Your task to perform on an android device: Clear the shopping cart on bestbuy. Search for razer blade on bestbuy, select the first entry, and add it to the cart. Image 0: 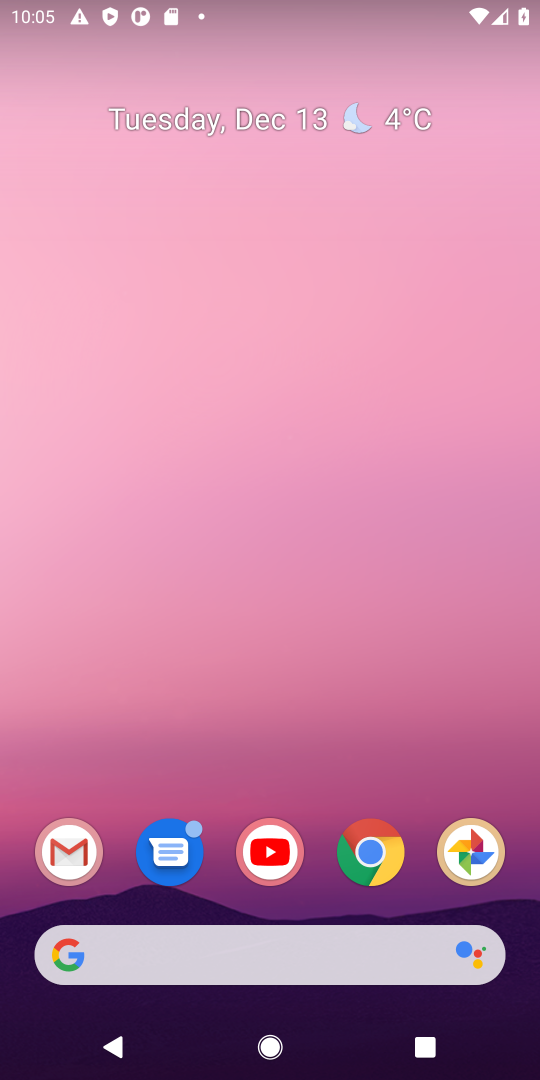
Step 0: drag from (91, 952) to (149, 942)
Your task to perform on an android device: Clear the shopping cart on bestbuy. Search for razer blade on bestbuy, select the first entry, and add it to the cart. Image 1: 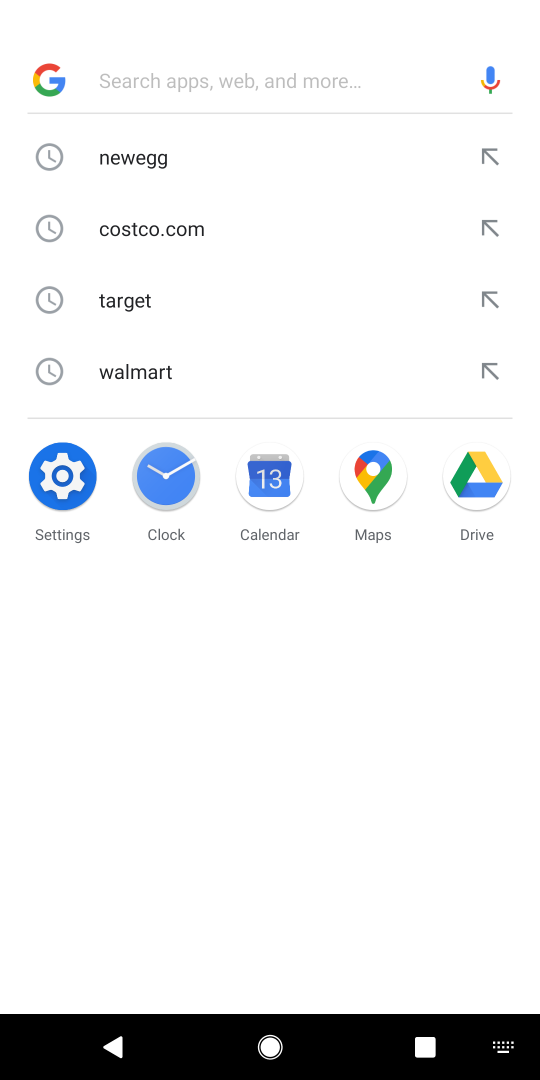
Step 1: type "bestbuy"
Your task to perform on an android device: Clear the shopping cart on bestbuy. Search for razer blade on bestbuy, select the first entry, and add it to the cart. Image 2: 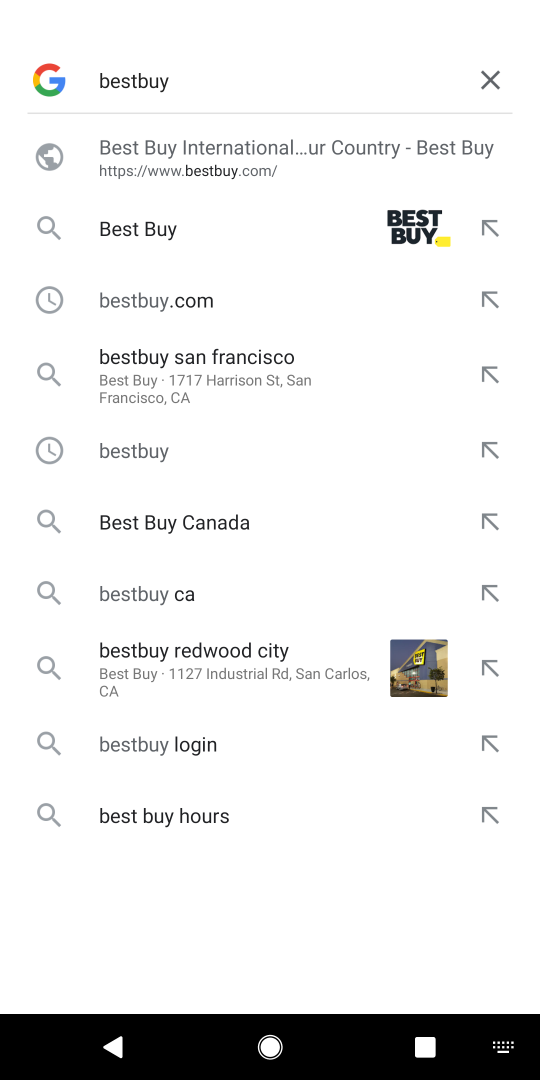
Step 2: press enter
Your task to perform on an android device: Clear the shopping cart on bestbuy. Search for razer blade on bestbuy, select the first entry, and add it to the cart. Image 3: 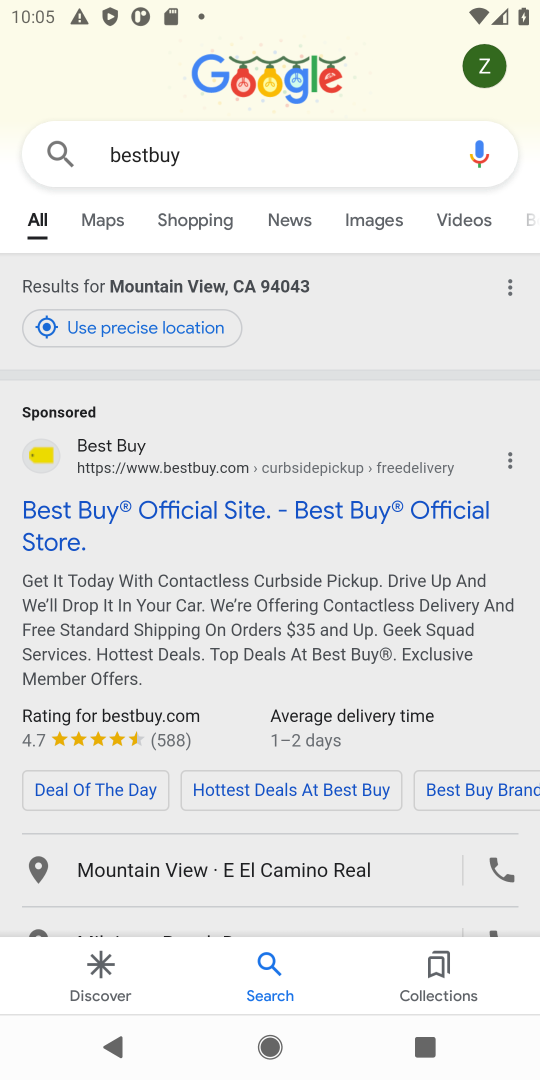
Step 3: click (133, 501)
Your task to perform on an android device: Clear the shopping cart on bestbuy. Search for razer blade on bestbuy, select the first entry, and add it to the cart. Image 4: 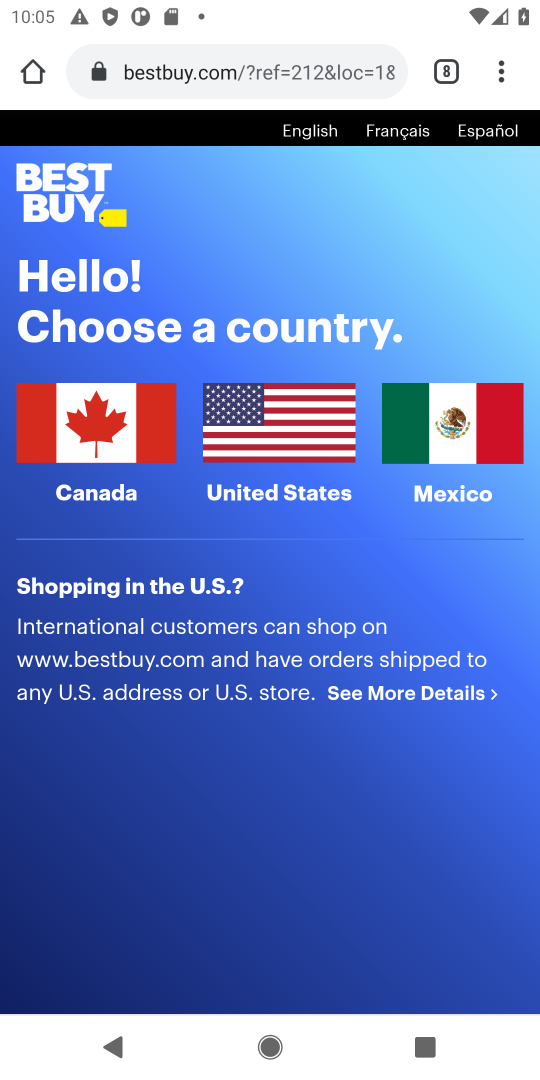
Step 4: click (93, 432)
Your task to perform on an android device: Clear the shopping cart on bestbuy. Search for razer blade on bestbuy, select the first entry, and add it to the cart. Image 5: 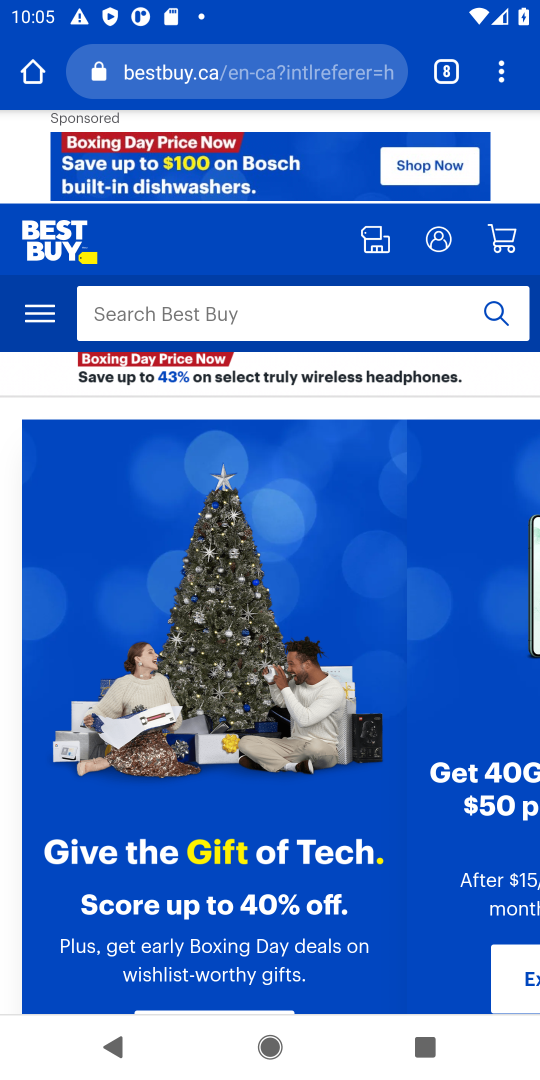
Step 5: click (499, 247)
Your task to perform on an android device: Clear the shopping cart on bestbuy. Search for razer blade on bestbuy, select the first entry, and add it to the cart. Image 6: 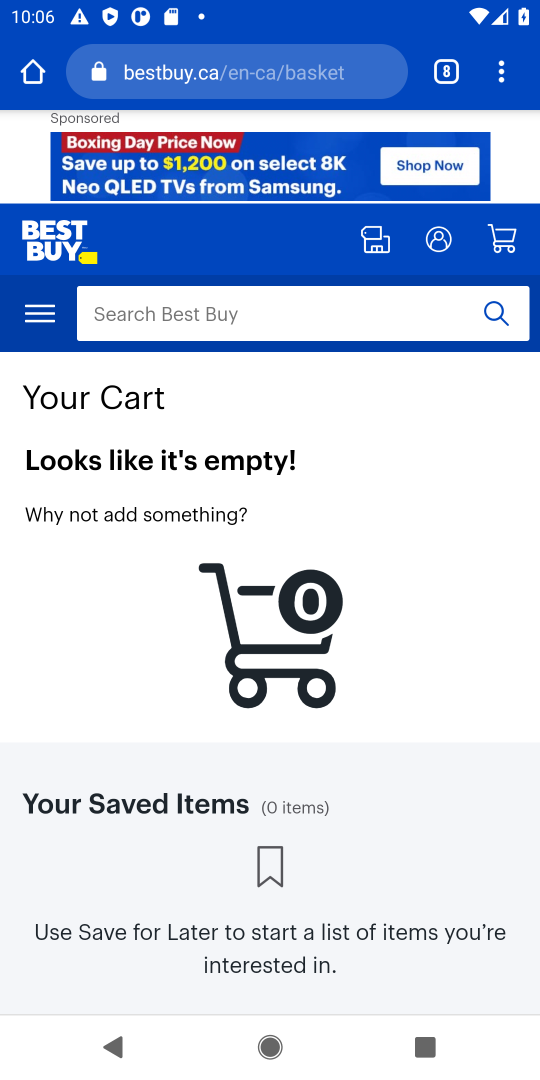
Step 6: click (217, 311)
Your task to perform on an android device: Clear the shopping cart on bestbuy. Search for razer blade on bestbuy, select the first entry, and add it to the cart. Image 7: 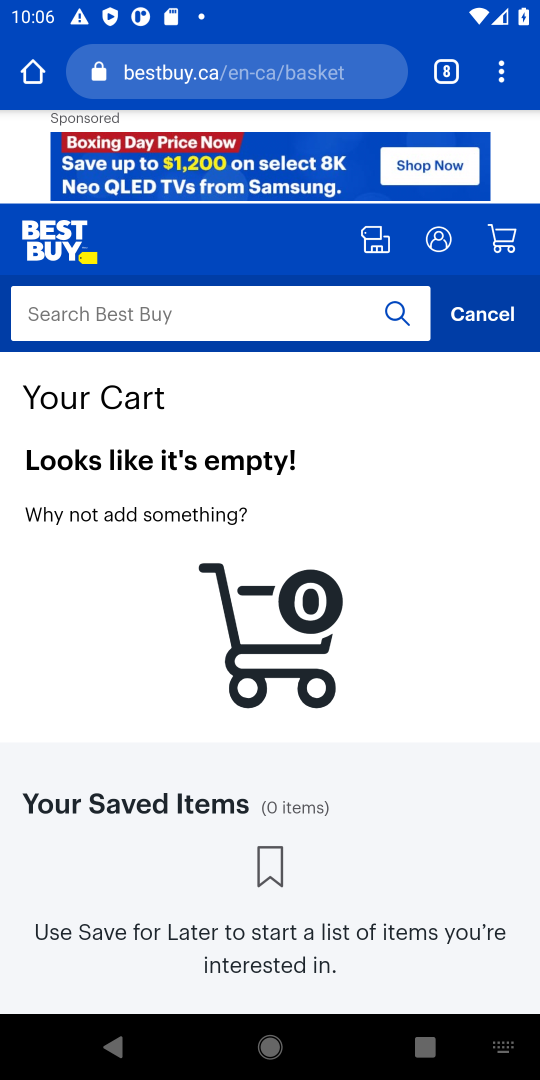
Step 7: type "razer blade"
Your task to perform on an android device: Clear the shopping cart on bestbuy. Search for razer blade on bestbuy, select the first entry, and add it to the cart. Image 8: 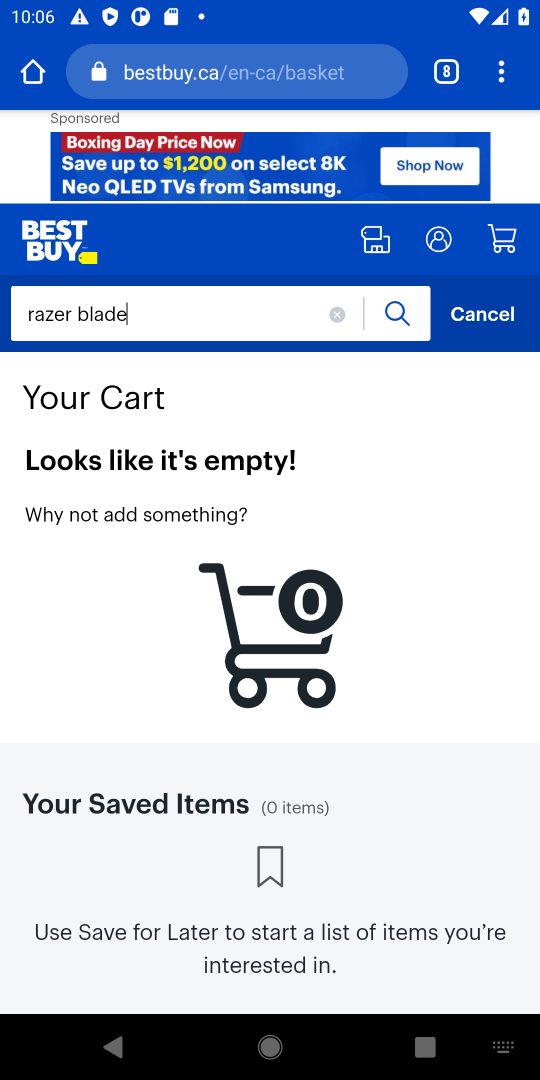
Step 8: press enter
Your task to perform on an android device: Clear the shopping cart on bestbuy. Search for razer blade on bestbuy, select the first entry, and add it to the cart. Image 9: 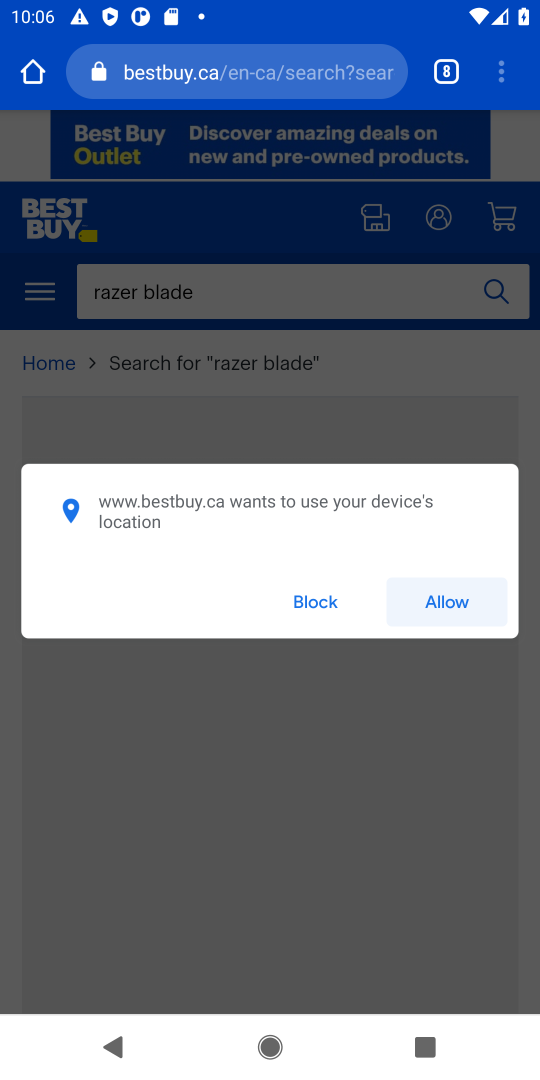
Step 9: click (309, 609)
Your task to perform on an android device: Clear the shopping cart on bestbuy. Search for razer blade on bestbuy, select the first entry, and add it to the cart. Image 10: 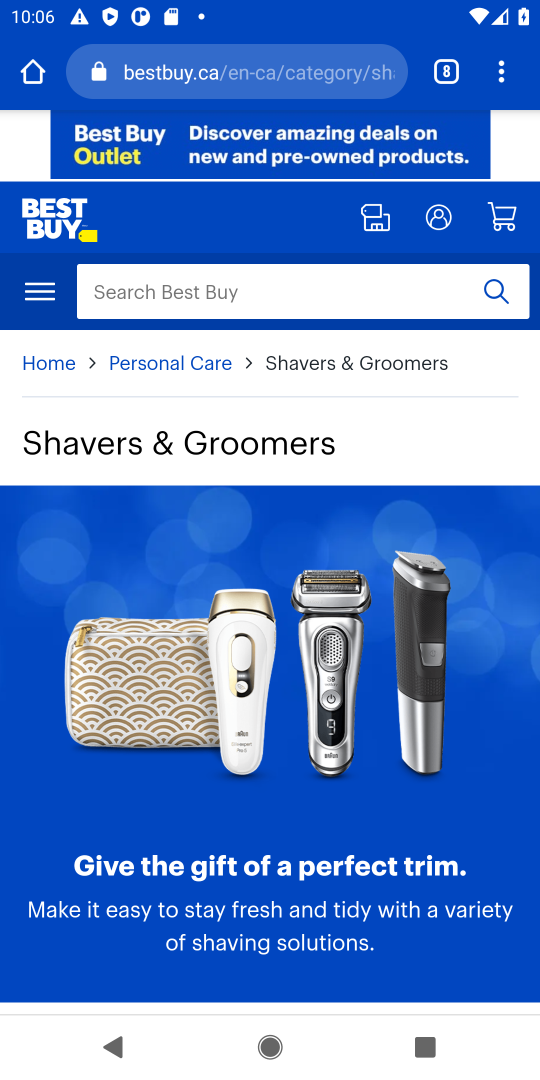
Step 10: task complete